Your task to perform on an android device: turn on the 12-hour format for clock Image 0: 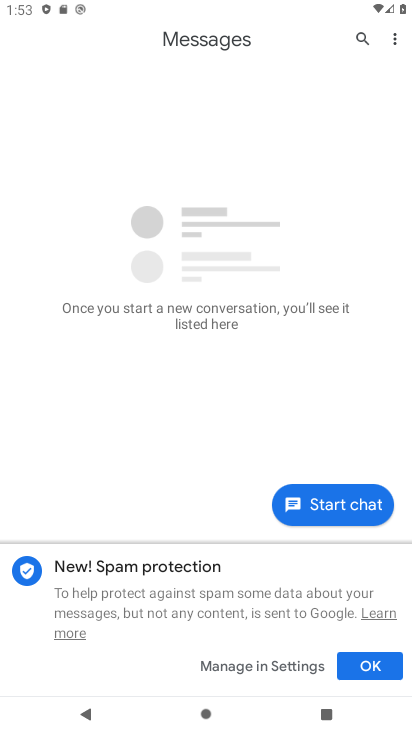
Step 0: press home button
Your task to perform on an android device: turn on the 12-hour format for clock Image 1: 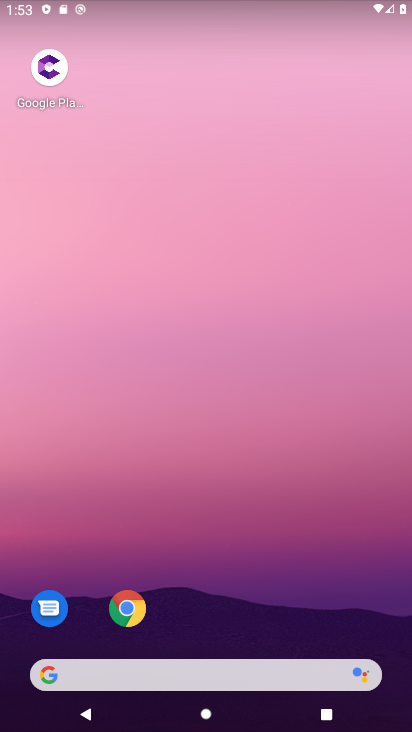
Step 1: drag from (276, 579) to (276, 135)
Your task to perform on an android device: turn on the 12-hour format for clock Image 2: 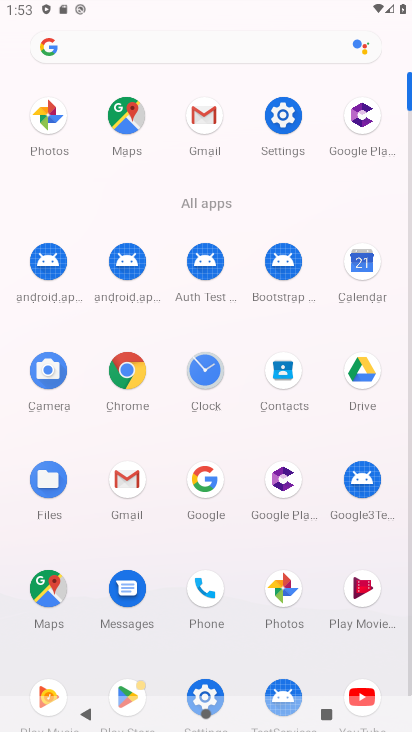
Step 2: click (224, 377)
Your task to perform on an android device: turn on the 12-hour format for clock Image 3: 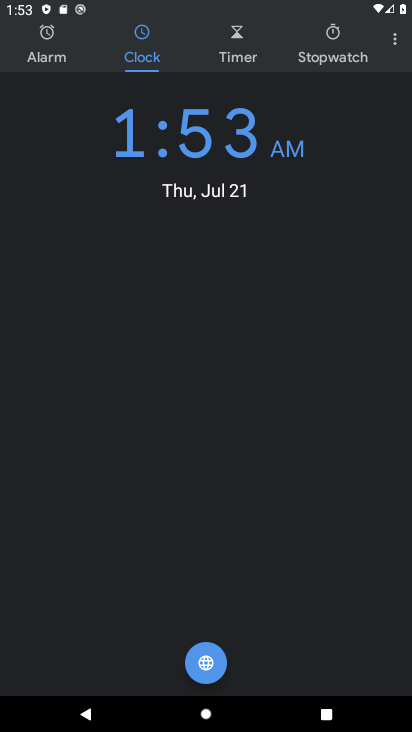
Step 3: click (397, 38)
Your task to perform on an android device: turn on the 12-hour format for clock Image 4: 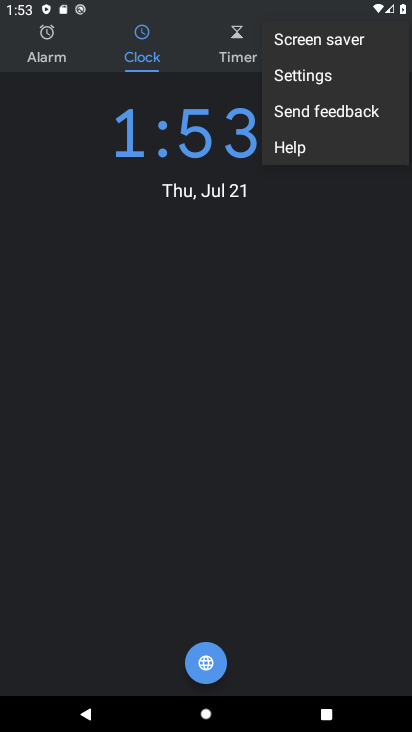
Step 4: click (339, 74)
Your task to perform on an android device: turn on the 12-hour format for clock Image 5: 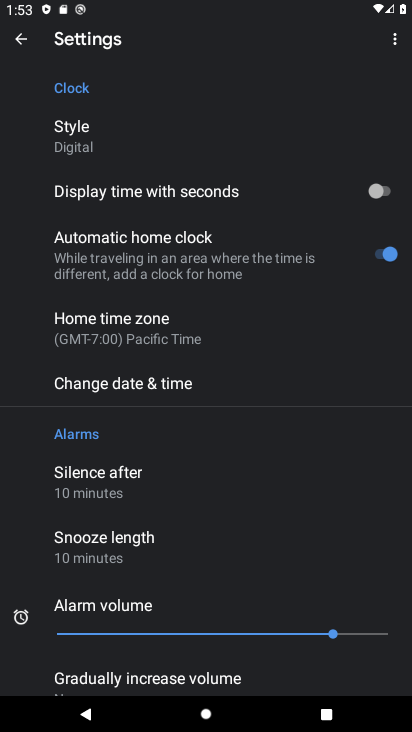
Step 5: click (193, 395)
Your task to perform on an android device: turn on the 12-hour format for clock Image 6: 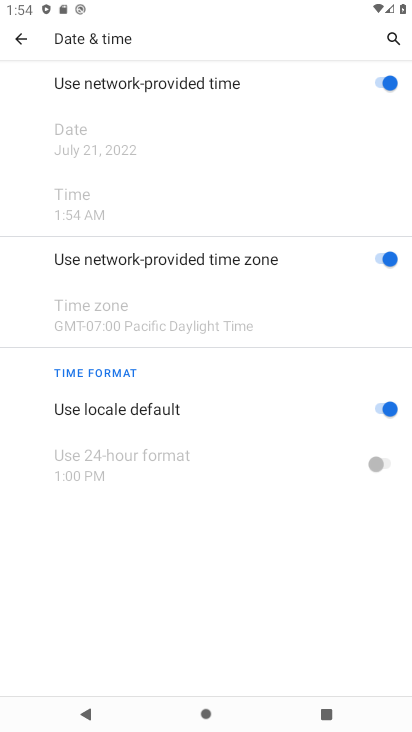
Step 6: task complete